Your task to perform on an android device: Open Youtube and go to "Your channel" Image 0: 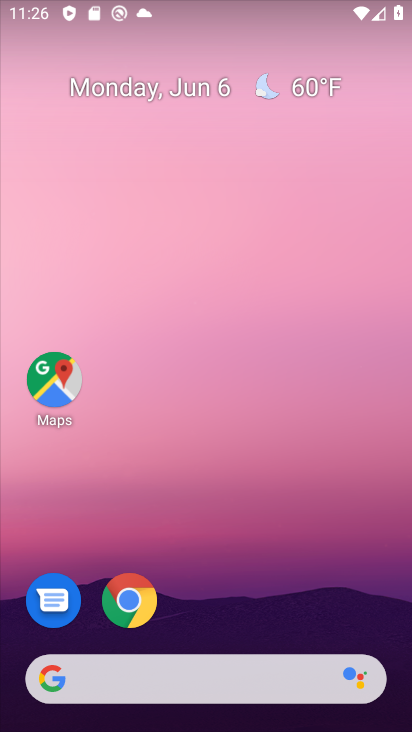
Step 0: drag from (212, 600) to (175, 110)
Your task to perform on an android device: Open Youtube and go to "Your channel" Image 1: 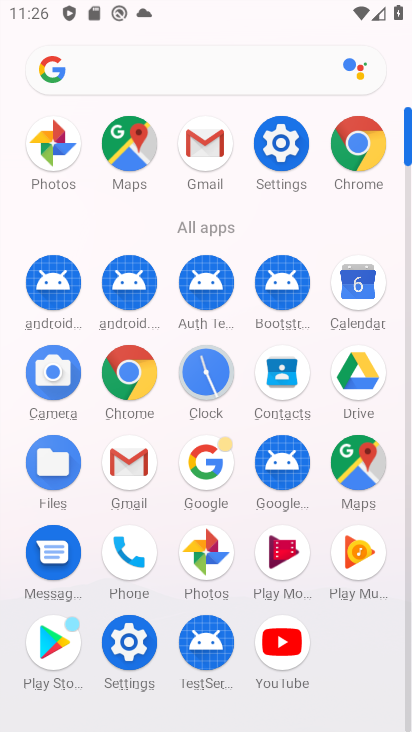
Step 1: click (278, 651)
Your task to perform on an android device: Open Youtube and go to "Your channel" Image 2: 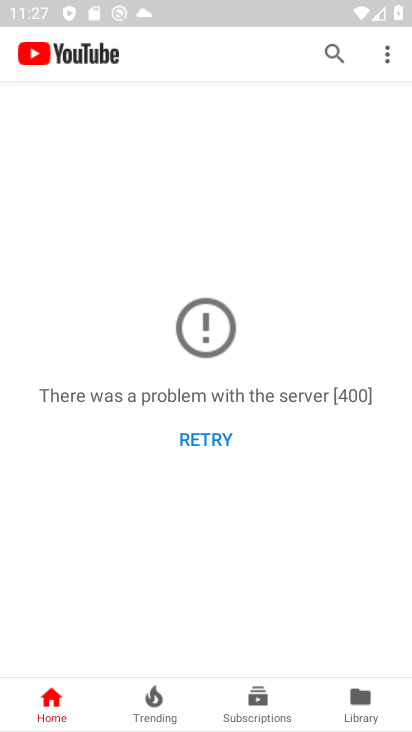
Step 2: task complete